Your task to perform on an android device: Go to Reddit.com Image 0: 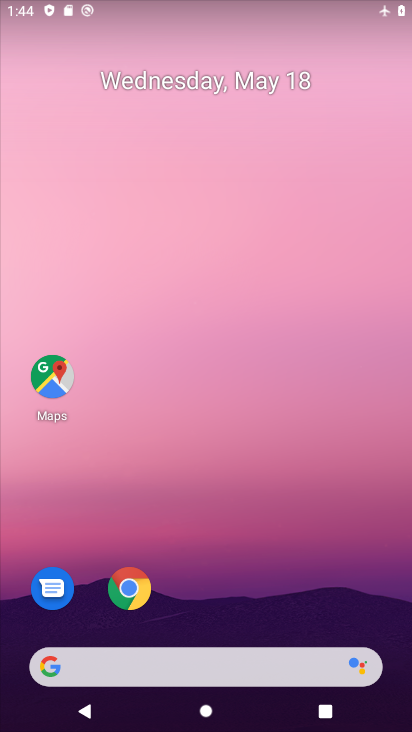
Step 0: click (128, 592)
Your task to perform on an android device: Go to Reddit.com Image 1: 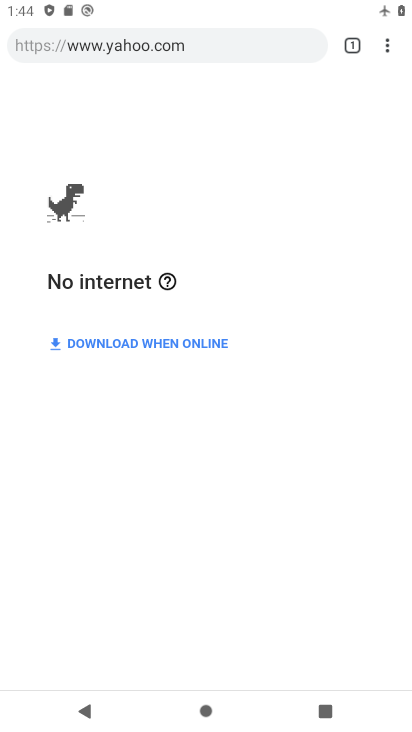
Step 1: click (184, 39)
Your task to perform on an android device: Go to Reddit.com Image 2: 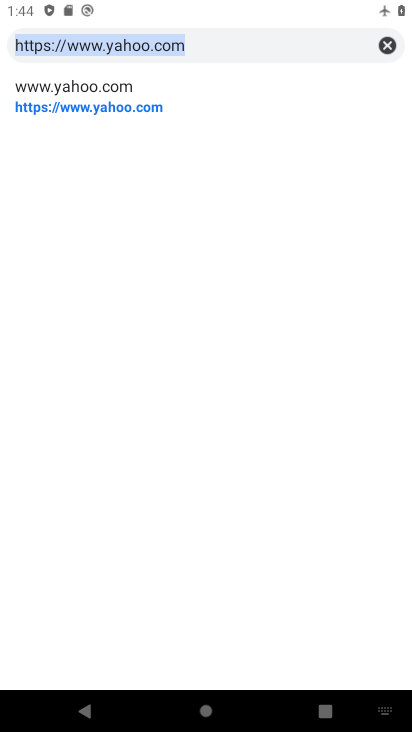
Step 2: click (390, 37)
Your task to perform on an android device: Go to Reddit.com Image 3: 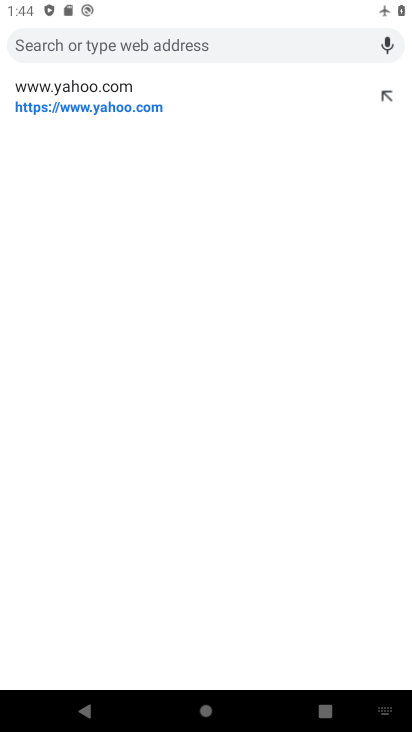
Step 3: type "Reddit.com"
Your task to perform on an android device: Go to Reddit.com Image 4: 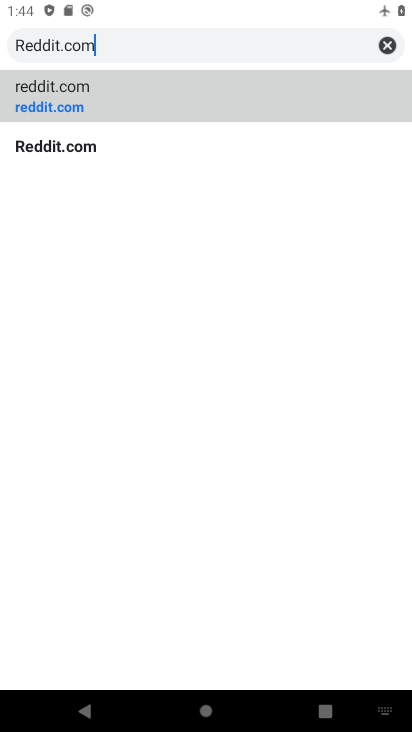
Step 4: type ""
Your task to perform on an android device: Go to Reddit.com Image 5: 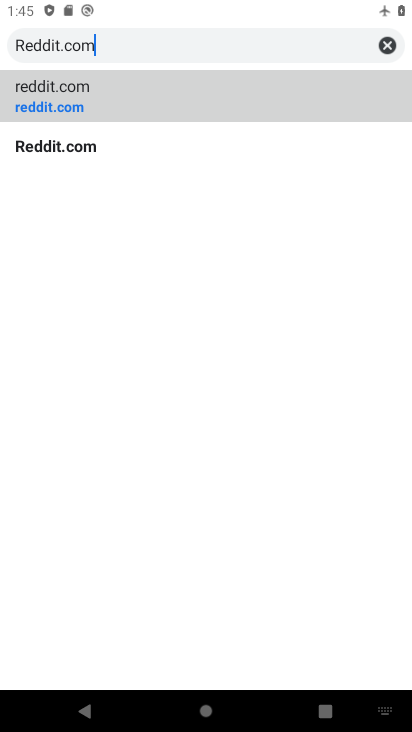
Step 5: click (68, 152)
Your task to perform on an android device: Go to Reddit.com Image 6: 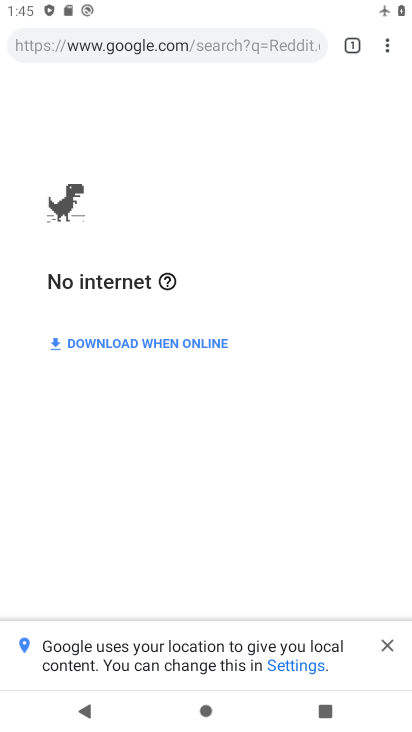
Step 6: task complete